Your task to perform on an android device: Show me popular games on the Play Store Image 0: 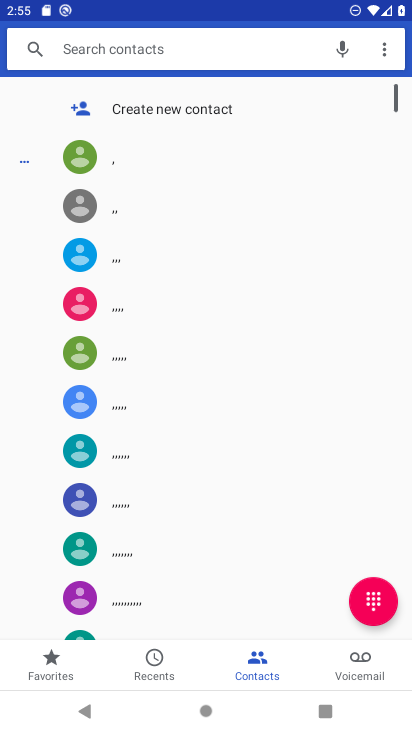
Step 0: press home button
Your task to perform on an android device: Show me popular games on the Play Store Image 1: 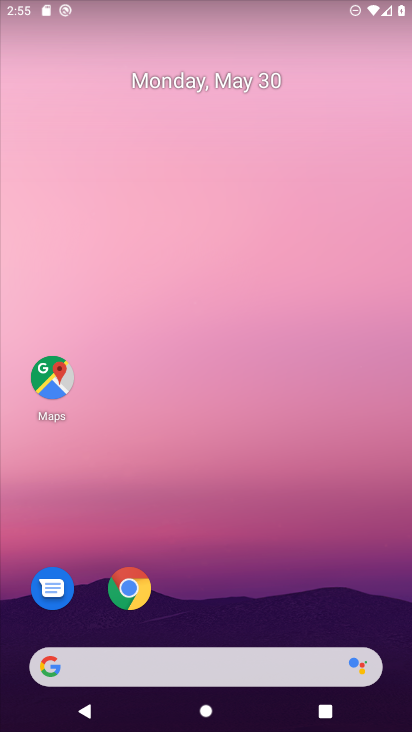
Step 1: drag from (194, 590) to (259, 294)
Your task to perform on an android device: Show me popular games on the Play Store Image 2: 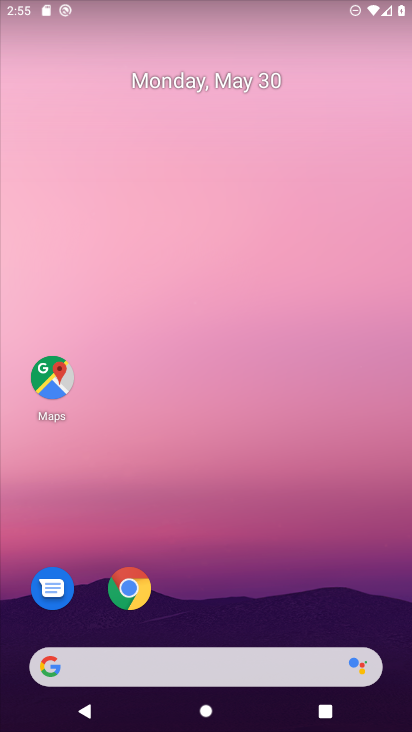
Step 2: drag from (168, 635) to (234, 252)
Your task to perform on an android device: Show me popular games on the Play Store Image 3: 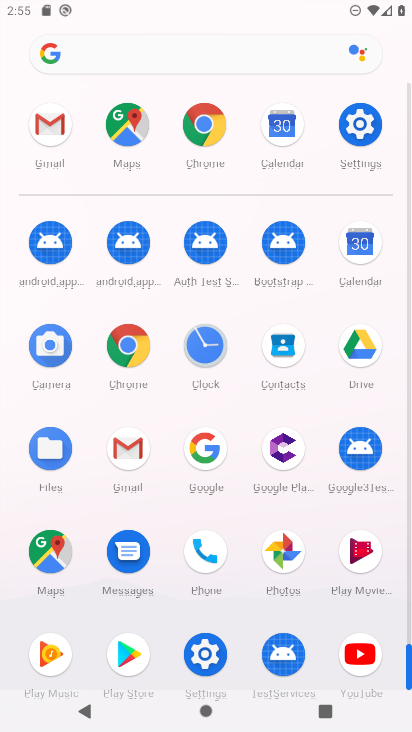
Step 3: drag from (237, 596) to (254, 525)
Your task to perform on an android device: Show me popular games on the Play Store Image 4: 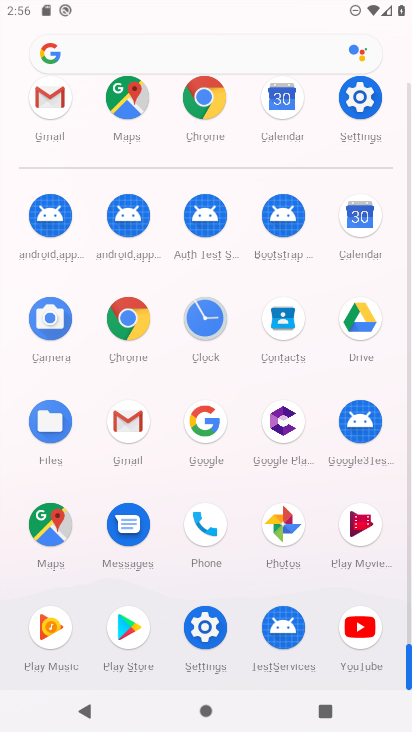
Step 4: click (116, 620)
Your task to perform on an android device: Show me popular games on the Play Store Image 5: 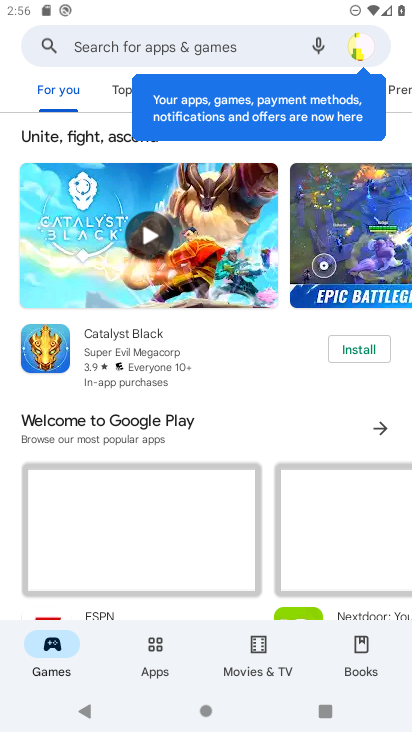
Step 5: click (169, 636)
Your task to perform on an android device: Show me popular games on the Play Store Image 6: 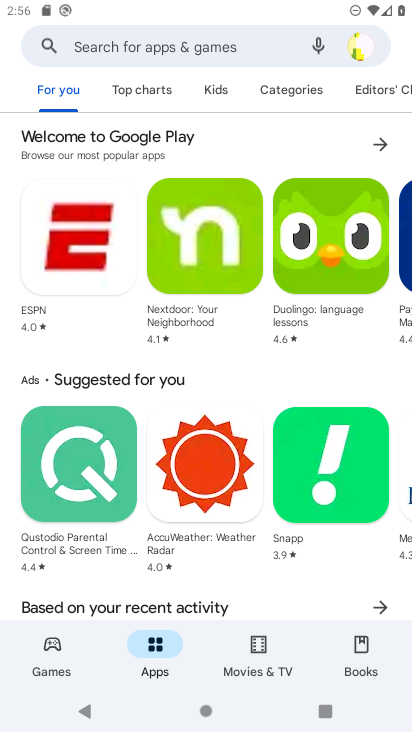
Step 6: task complete